Your task to perform on an android device: check google app version Image 0: 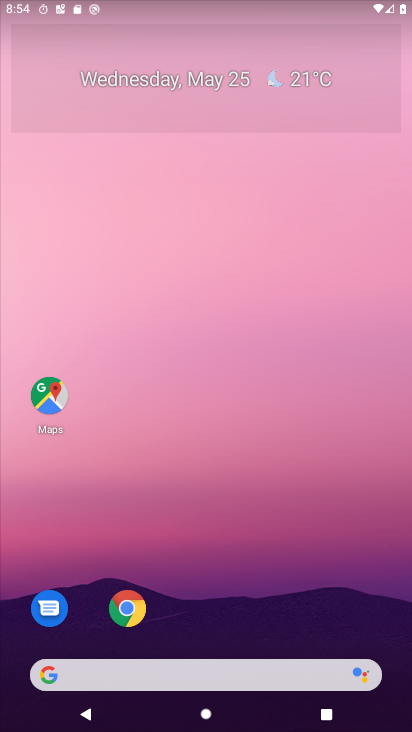
Step 0: drag from (219, 720) to (219, 124)
Your task to perform on an android device: check google app version Image 1: 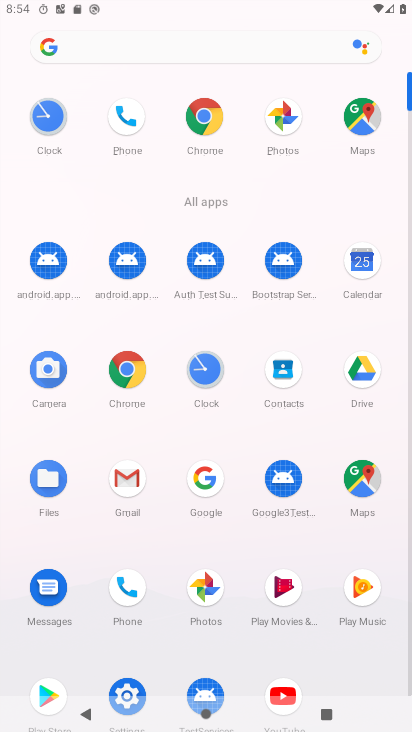
Step 1: click (200, 480)
Your task to perform on an android device: check google app version Image 2: 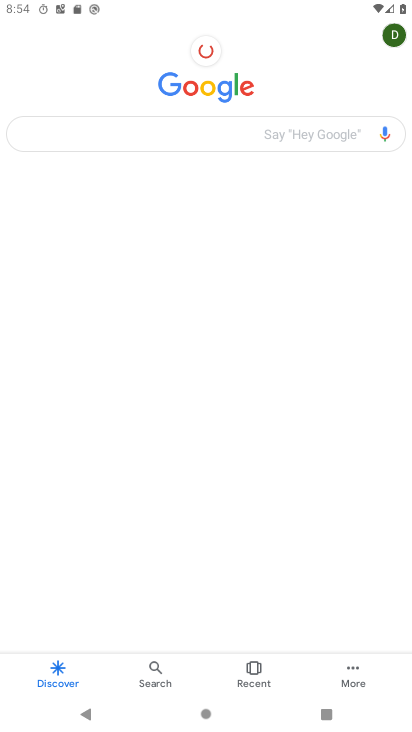
Step 2: click (352, 662)
Your task to perform on an android device: check google app version Image 3: 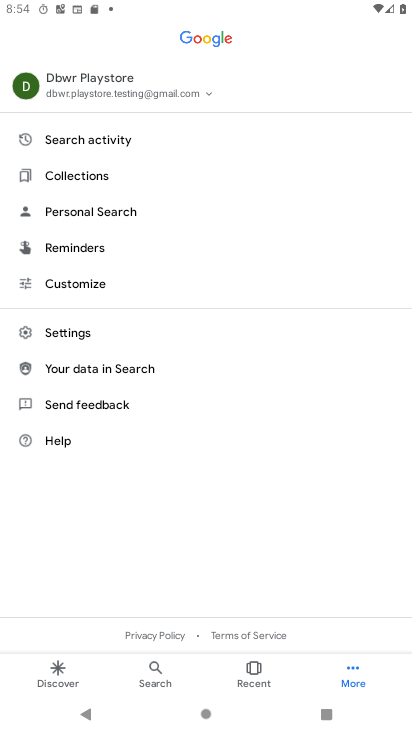
Step 3: click (72, 328)
Your task to perform on an android device: check google app version Image 4: 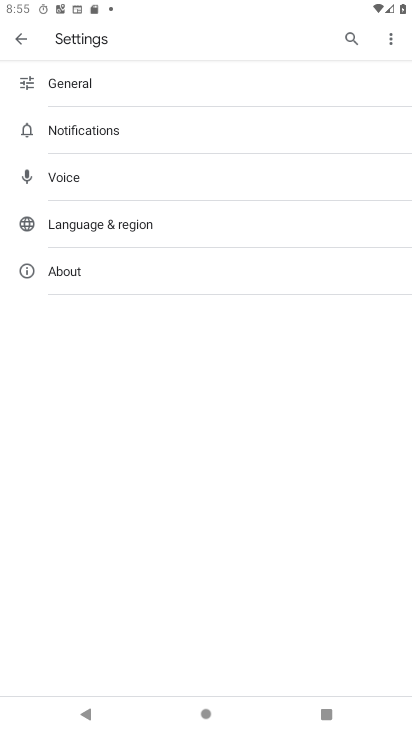
Step 4: click (68, 268)
Your task to perform on an android device: check google app version Image 5: 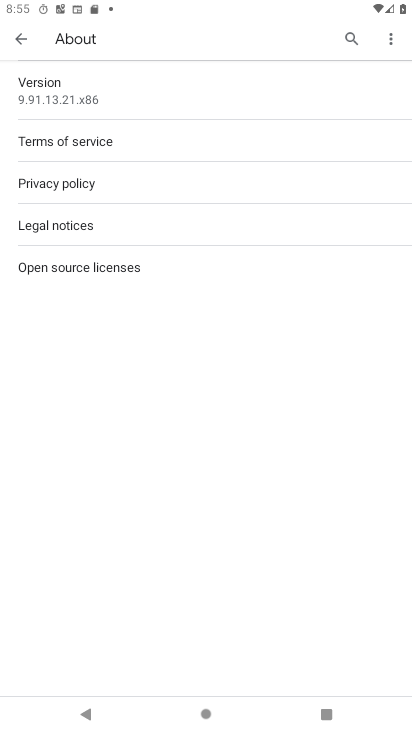
Step 5: task complete